Your task to perform on an android device: turn notification dots on Image 0: 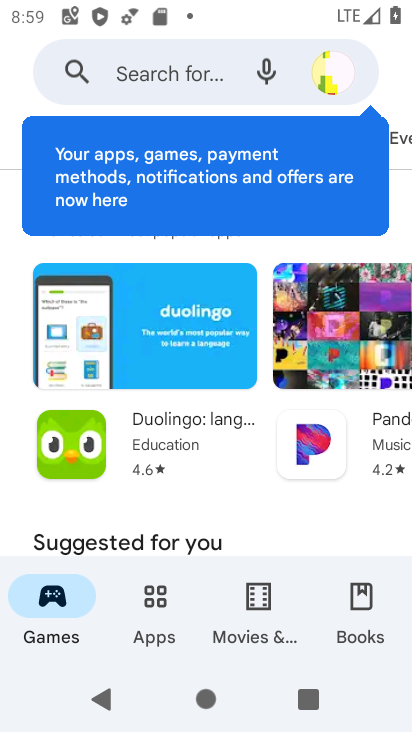
Step 0: press home button
Your task to perform on an android device: turn notification dots on Image 1: 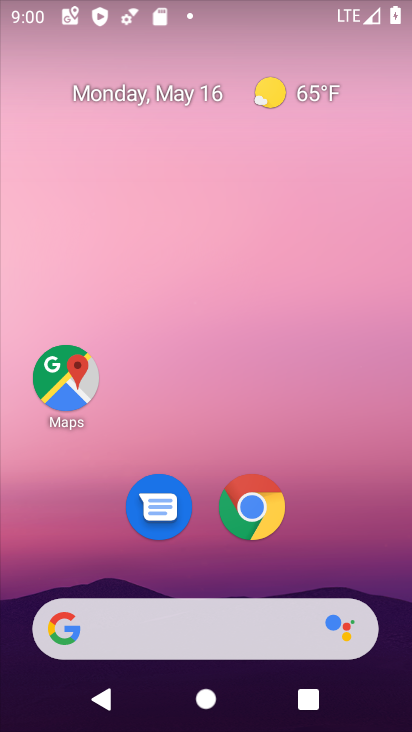
Step 1: drag from (241, 578) to (154, 11)
Your task to perform on an android device: turn notification dots on Image 2: 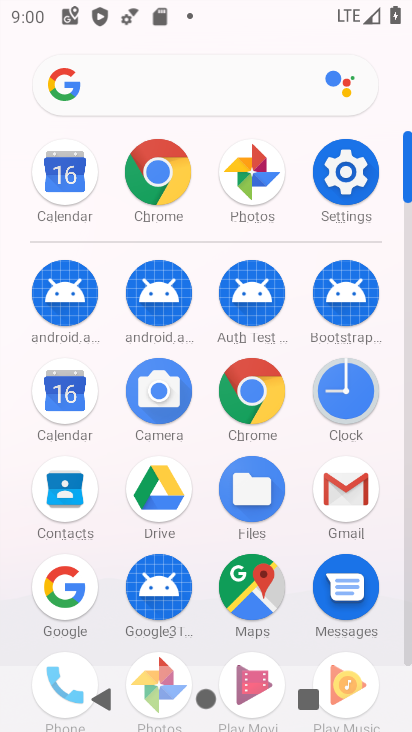
Step 2: click (335, 178)
Your task to perform on an android device: turn notification dots on Image 3: 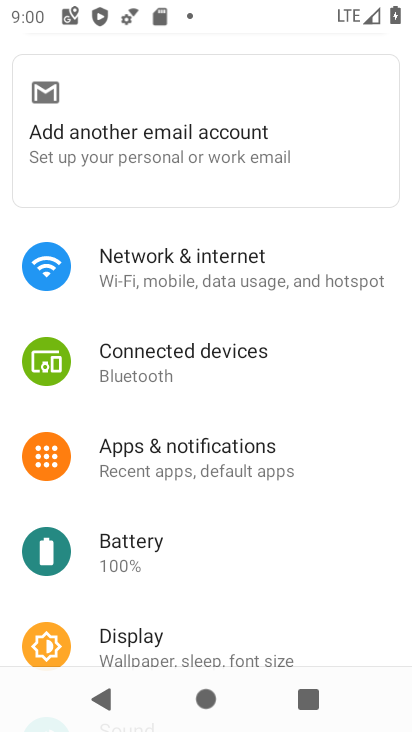
Step 3: click (270, 464)
Your task to perform on an android device: turn notification dots on Image 4: 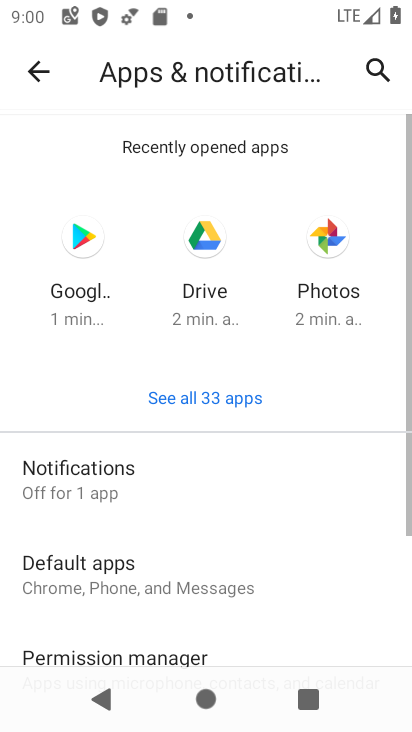
Step 4: drag from (273, 452) to (237, 233)
Your task to perform on an android device: turn notification dots on Image 5: 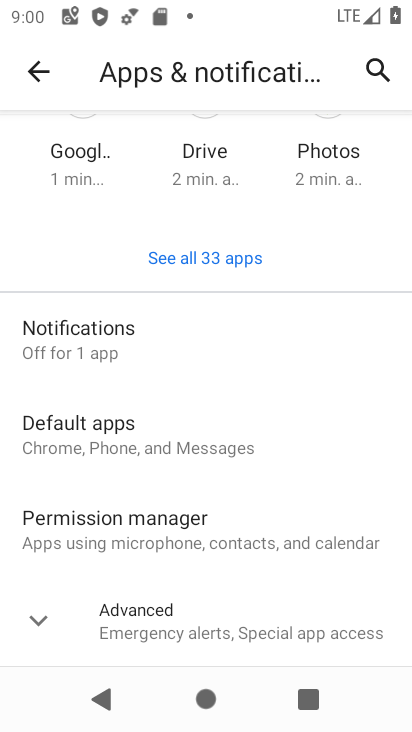
Step 5: click (162, 335)
Your task to perform on an android device: turn notification dots on Image 6: 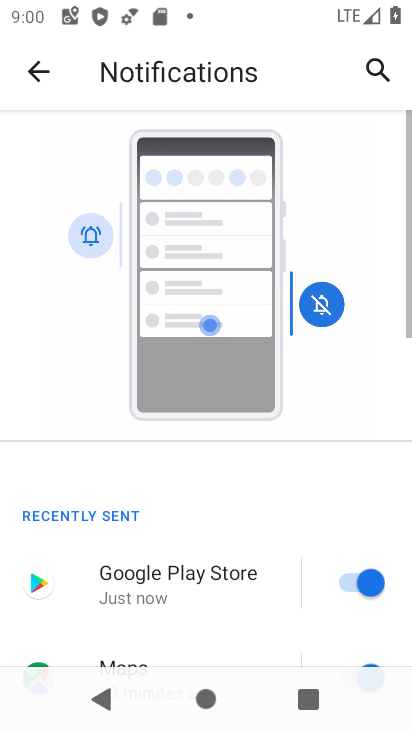
Step 6: drag from (234, 540) to (167, 93)
Your task to perform on an android device: turn notification dots on Image 7: 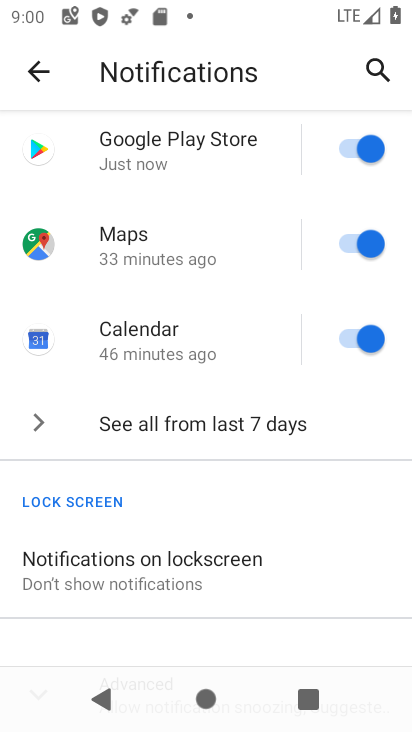
Step 7: drag from (230, 573) to (155, 109)
Your task to perform on an android device: turn notification dots on Image 8: 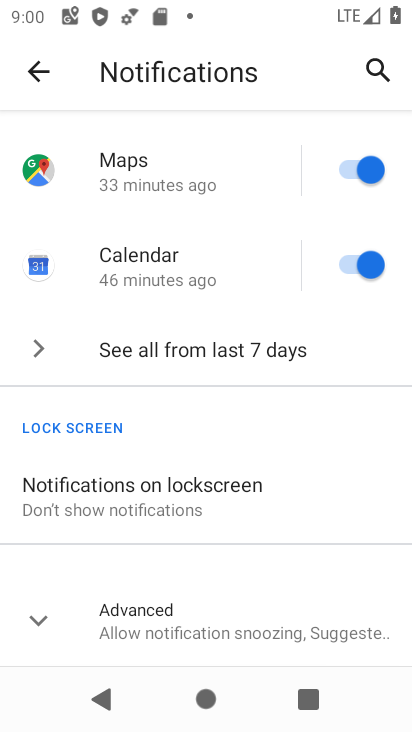
Step 8: click (178, 616)
Your task to perform on an android device: turn notification dots on Image 9: 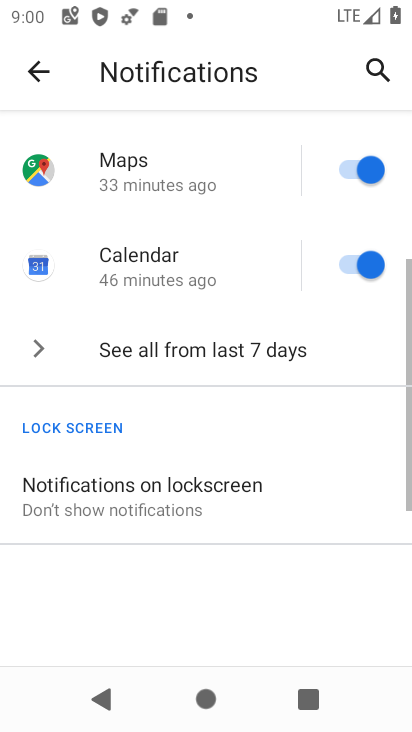
Step 9: drag from (179, 617) to (88, 209)
Your task to perform on an android device: turn notification dots on Image 10: 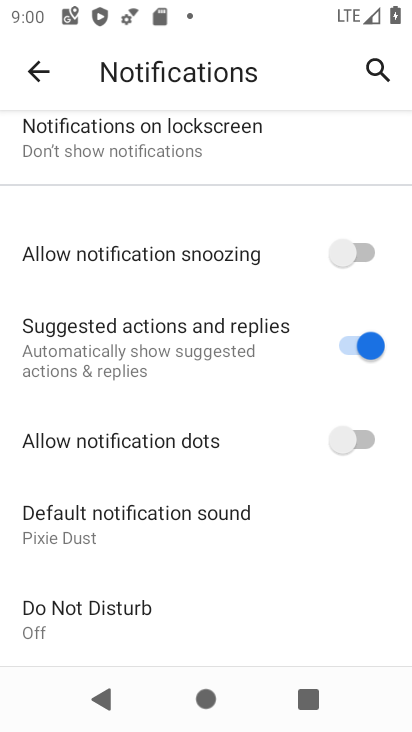
Step 10: click (361, 442)
Your task to perform on an android device: turn notification dots on Image 11: 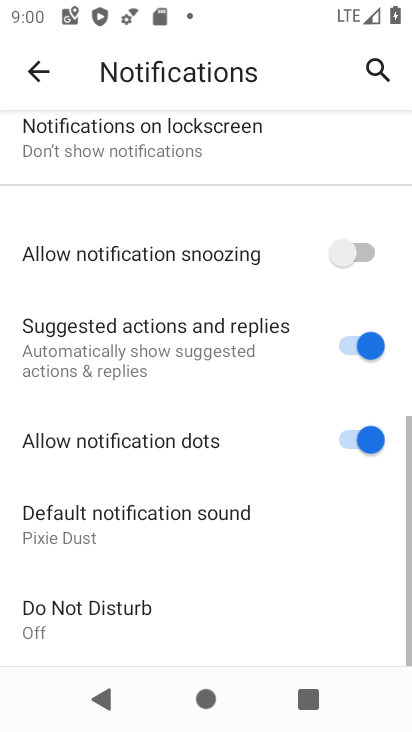
Step 11: task complete